Your task to perform on an android device: Go to Android settings Image 0: 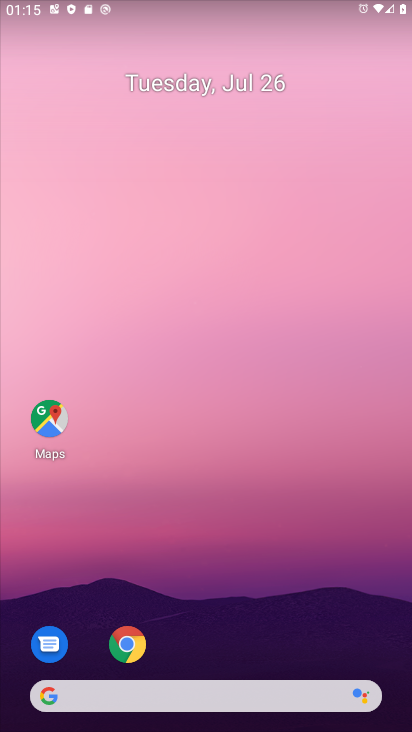
Step 0: drag from (204, 651) to (207, 159)
Your task to perform on an android device: Go to Android settings Image 1: 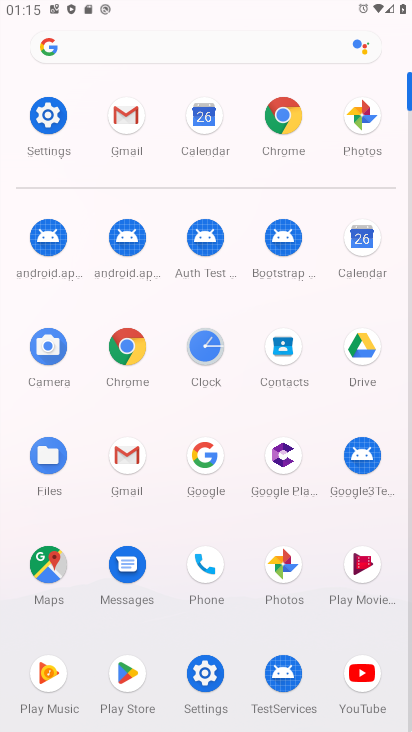
Step 1: click (42, 122)
Your task to perform on an android device: Go to Android settings Image 2: 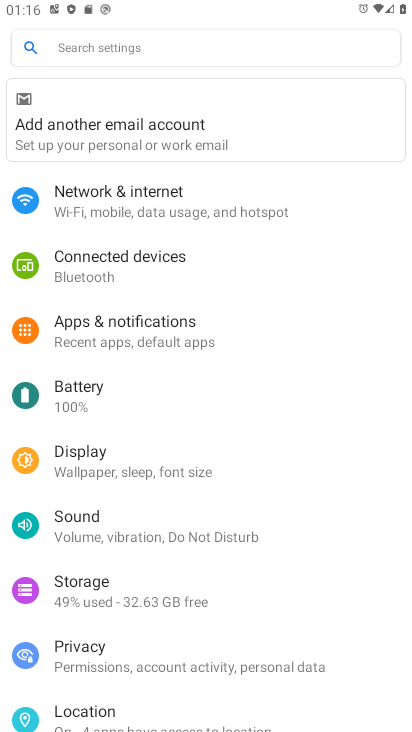
Step 2: task complete